Your task to perform on an android device: Open accessibility settings Image 0: 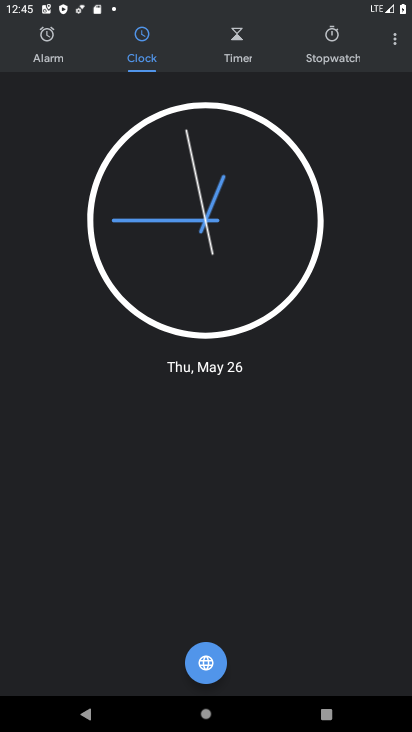
Step 0: press home button
Your task to perform on an android device: Open accessibility settings Image 1: 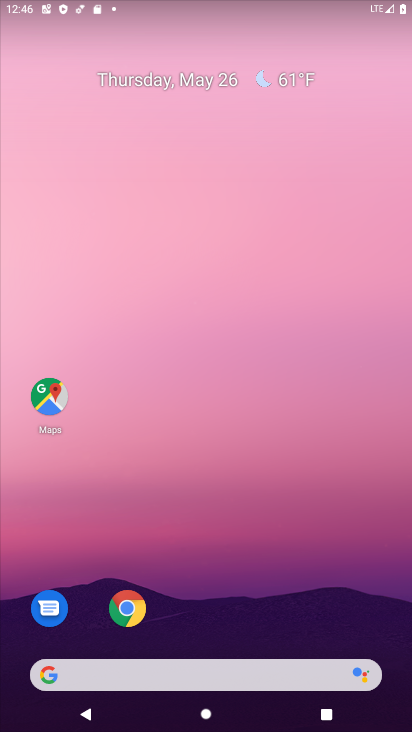
Step 1: drag from (349, 638) to (353, 14)
Your task to perform on an android device: Open accessibility settings Image 2: 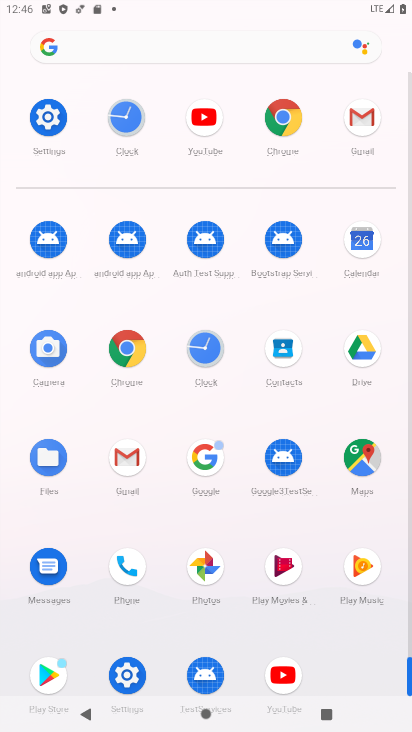
Step 2: click (127, 675)
Your task to perform on an android device: Open accessibility settings Image 3: 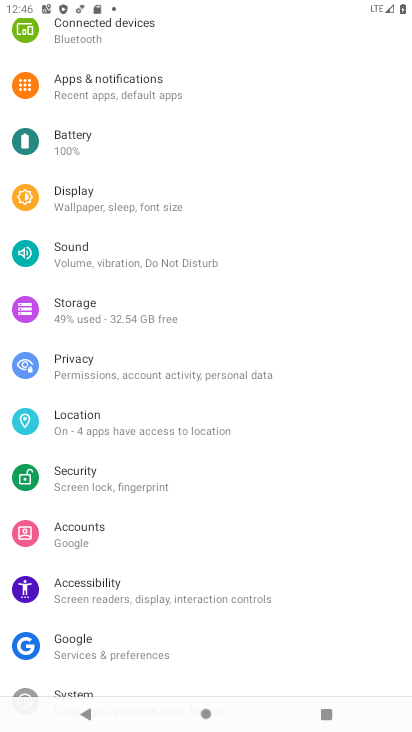
Step 3: click (86, 585)
Your task to perform on an android device: Open accessibility settings Image 4: 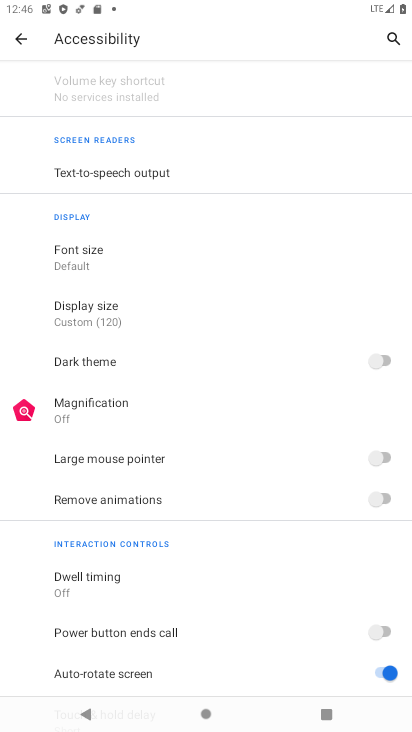
Step 4: task complete